Your task to perform on an android device: Play the last video I watched on Youtube Image 0: 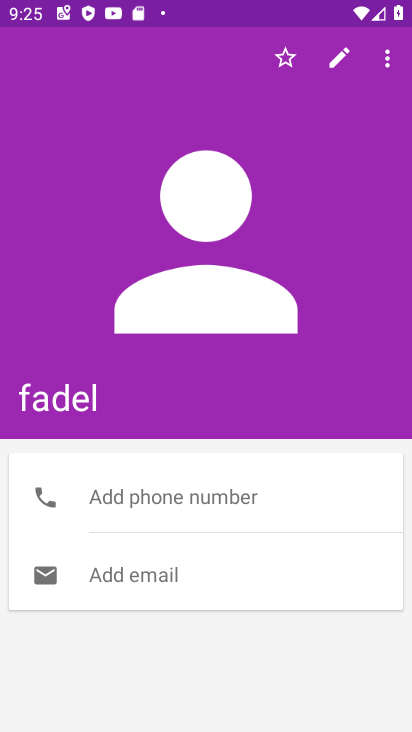
Step 0: press home button
Your task to perform on an android device: Play the last video I watched on Youtube Image 1: 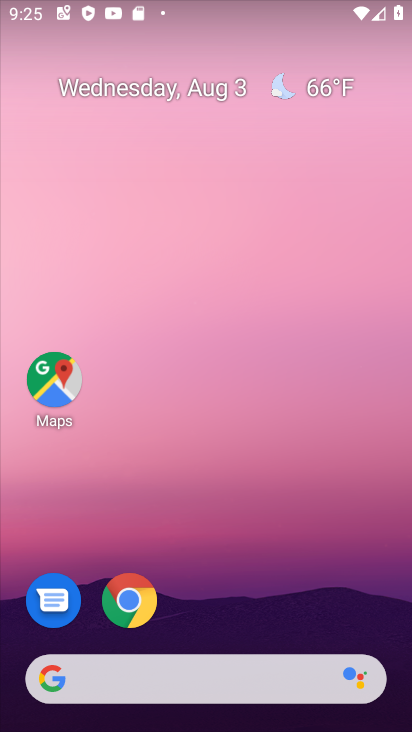
Step 1: drag from (230, 621) to (247, 10)
Your task to perform on an android device: Play the last video I watched on Youtube Image 2: 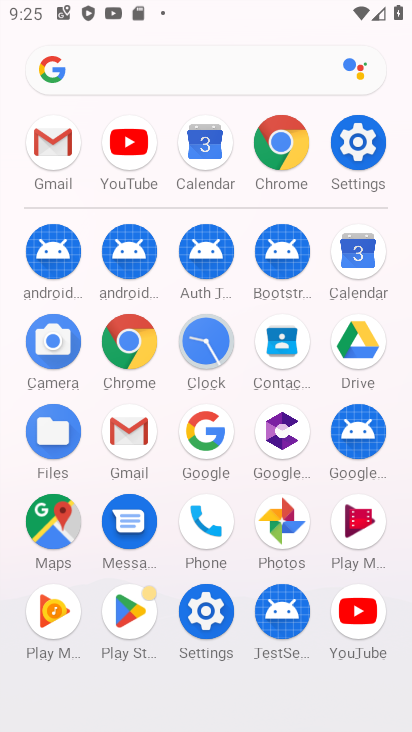
Step 2: click (353, 622)
Your task to perform on an android device: Play the last video I watched on Youtube Image 3: 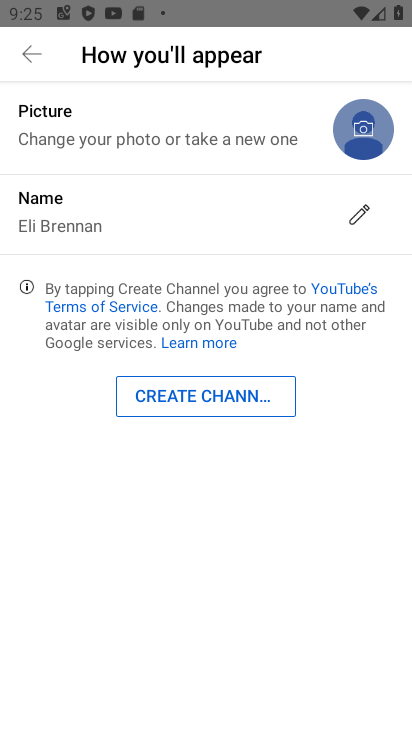
Step 3: click (27, 43)
Your task to perform on an android device: Play the last video I watched on Youtube Image 4: 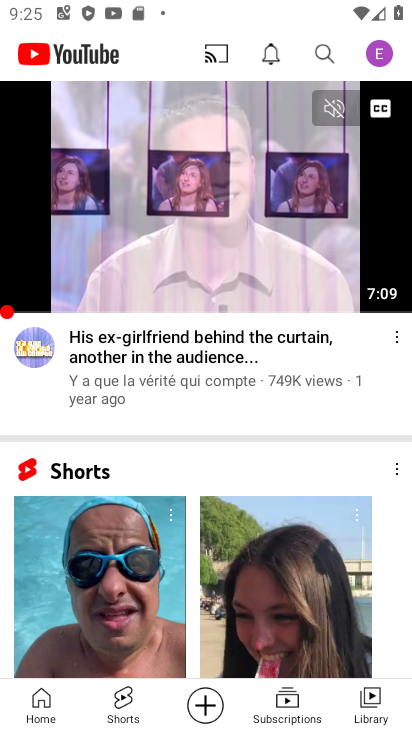
Step 4: click (377, 707)
Your task to perform on an android device: Play the last video I watched on Youtube Image 5: 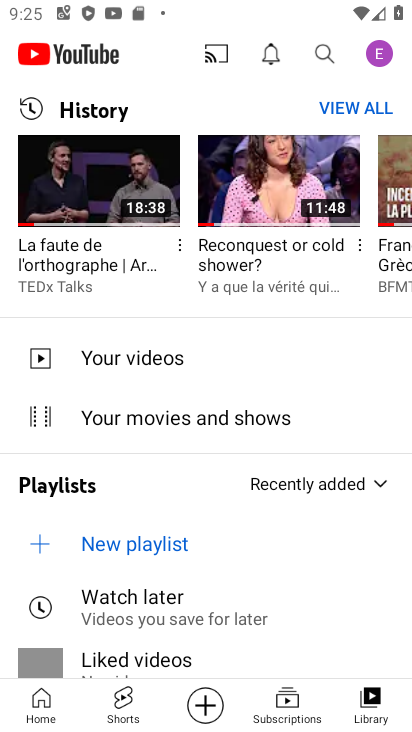
Step 5: click (130, 202)
Your task to perform on an android device: Play the last video I watched on Youtube Image 6: 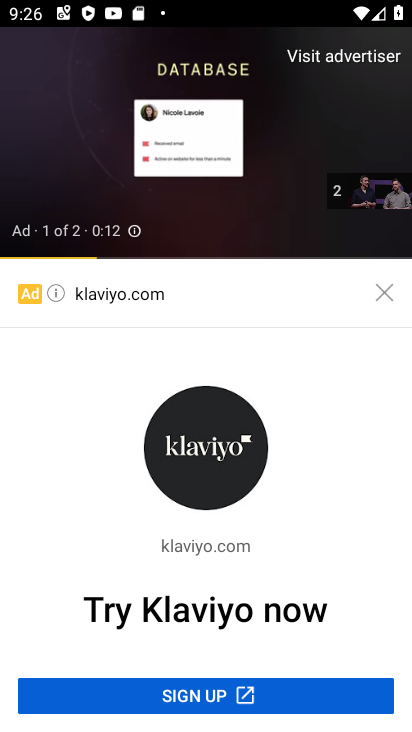
Step 6: task complete